Your task to perform on an android device: add a label to a message in the gmail app Image 0: 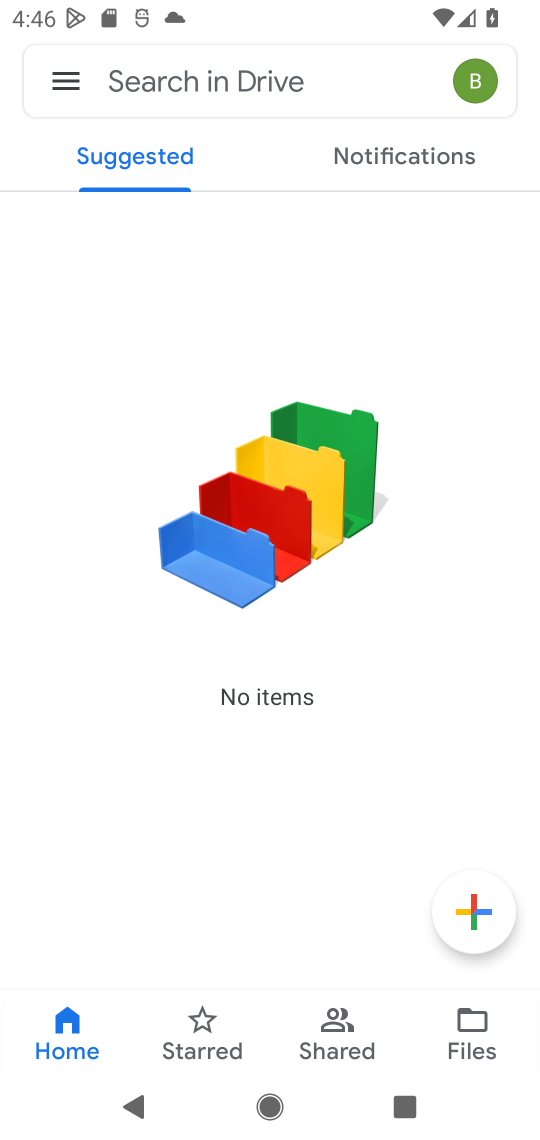
Step 0: press home button
Your task to perform on an android device: add a label to a message in the gmail app Image 1: 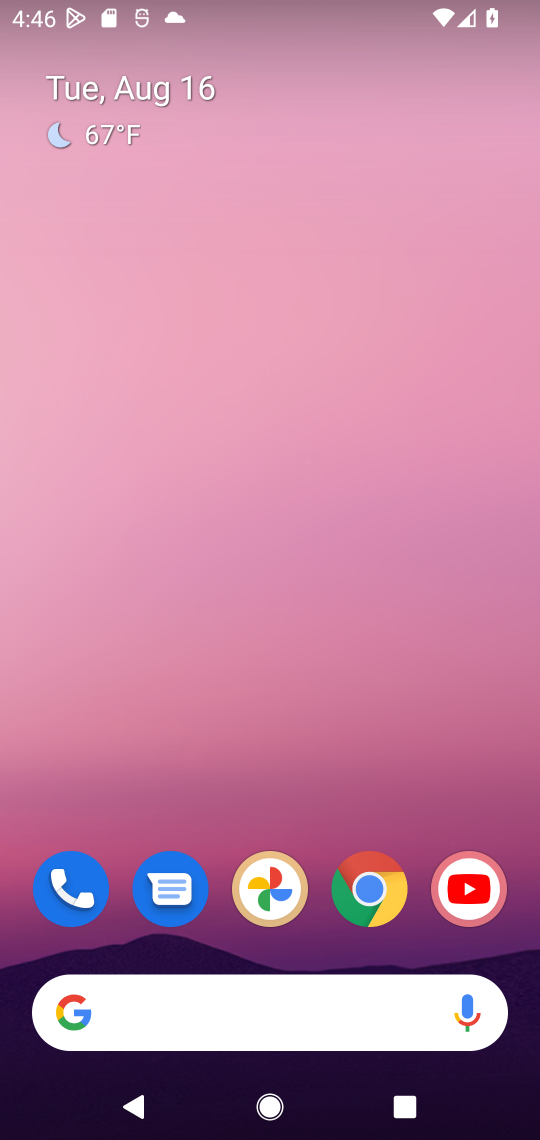
Step 1: drag from (300, 643) to (333, 241)
Your task to perform on an android device: add a label to a message in the gmail app Image 2: 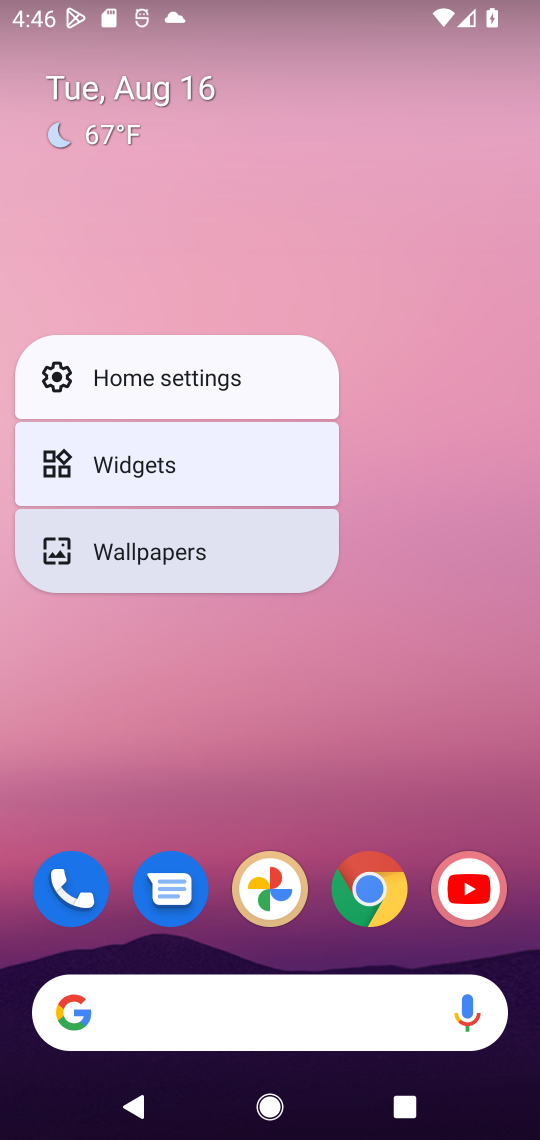
Step 2: click (346, 734)
Your task to perform on an android device: add a label to a message in the gmail app Image 3: 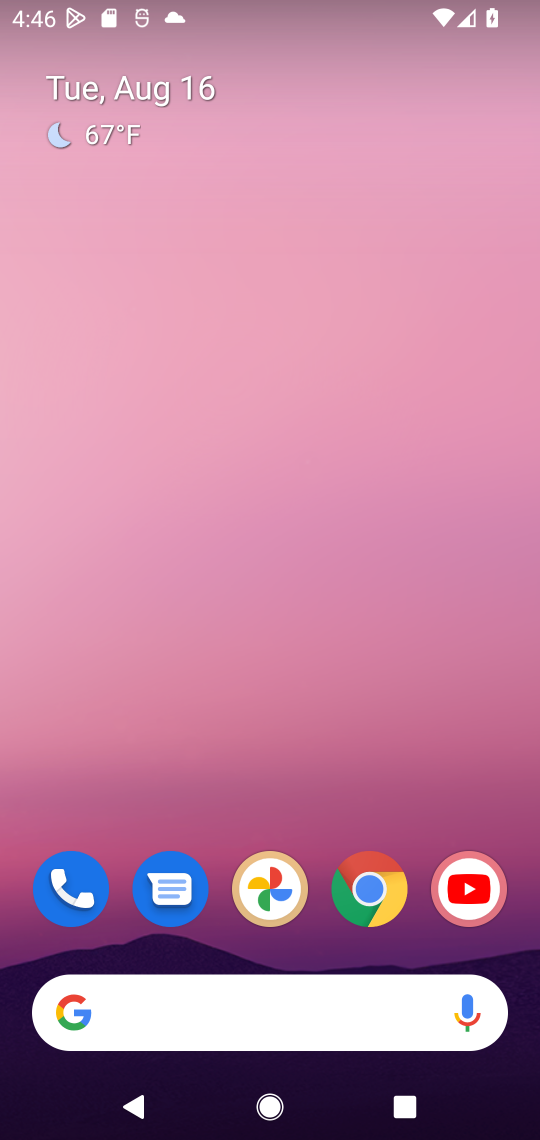
Step 3: click (346, 734)
Your task to perform on an android device: add a label to a message in the gmail app Image 4: 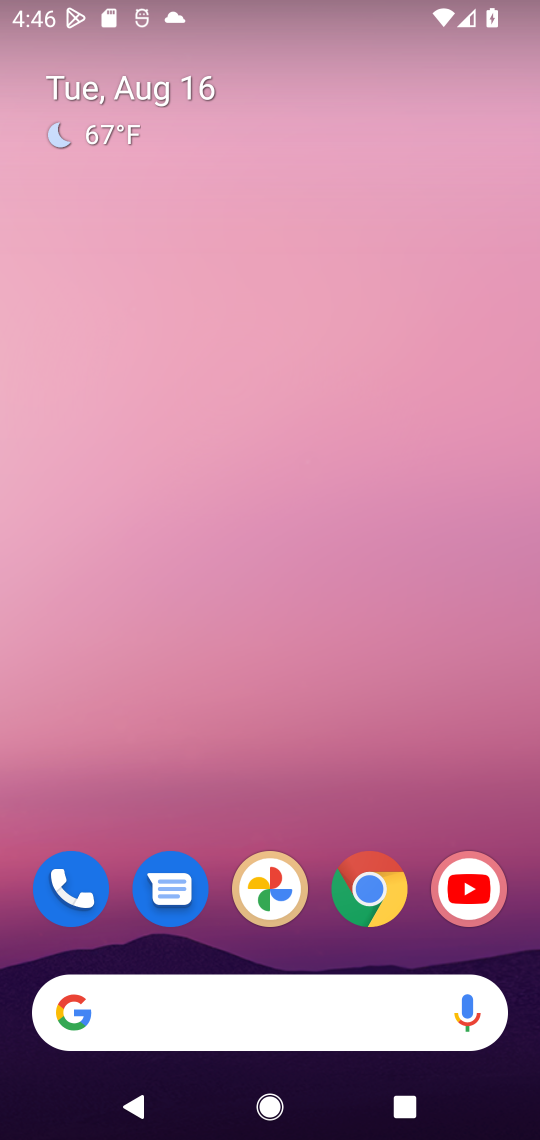
Step 4: drag from (346, 734) to (395, 191)
Your task to perform on an android device: add a label to a message in the gmail app Image 5: 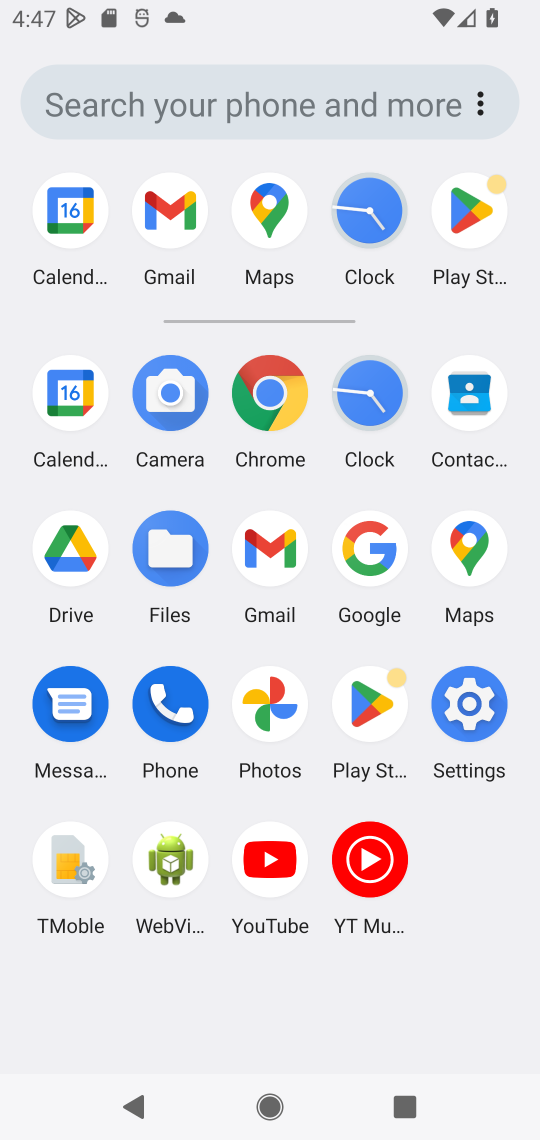
Step 5: click (235, 537)
Your task to perform on an android device: add a label to a message in the gmail app Image 6: 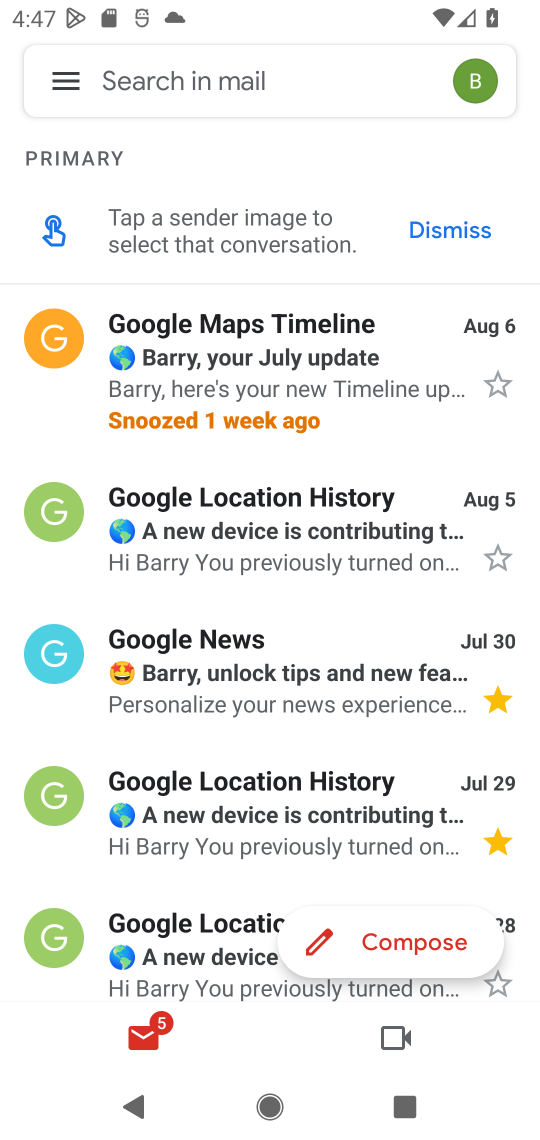
Step 6: task complete